Your task to perform on an android device: find photos in the google photos app Image 0: 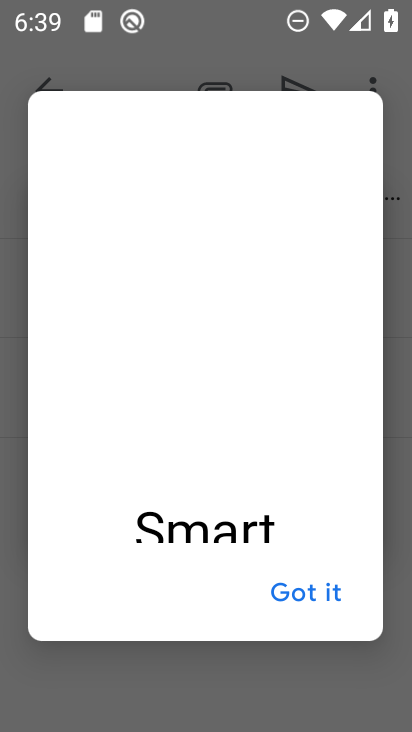
Step 0: drag from (382, 639) to (403, 238)
Your task to perform on an android device: find photos in the google photos app Image 1: 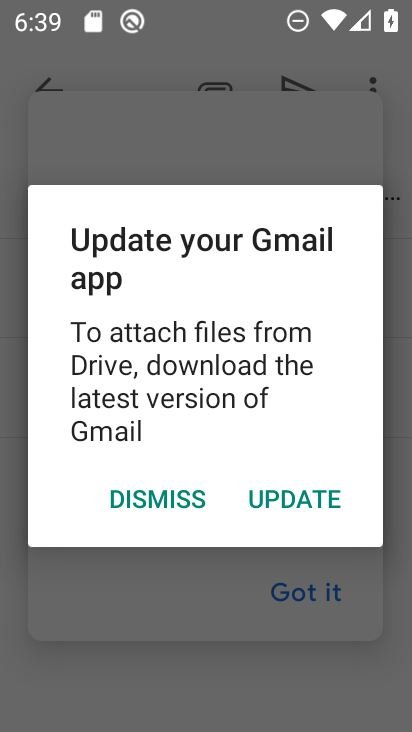
Step 1: press home button
Your task to perform on an android device: find photos in the google photos app Image 2: 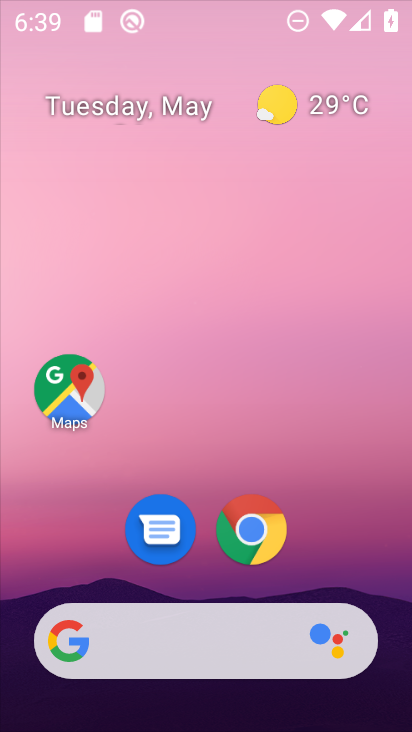
Step 2: drag from (379, 628) to (325, 65)
Your task to perform on an android device: find photos in the google photos app Image 3: 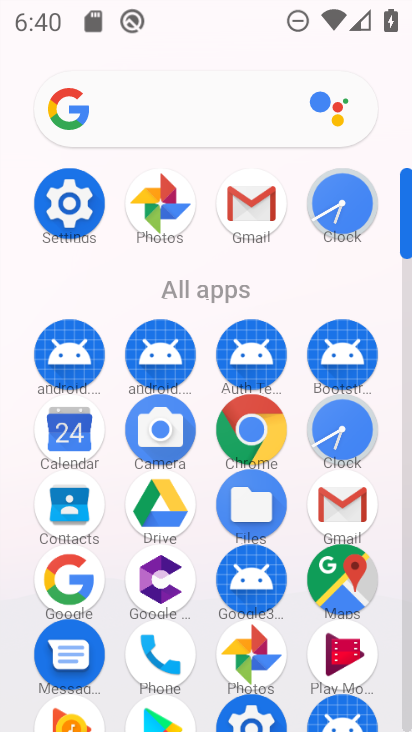
Step 3: click (246, 646)
Your task to perform on an android device: find photos in the google photos app Image 4: 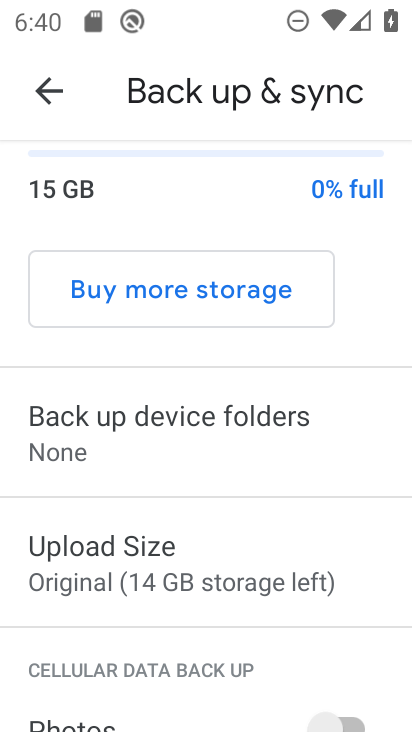
Step 4: task complete